Your task to perform on an android device: See recent photos Image 0: 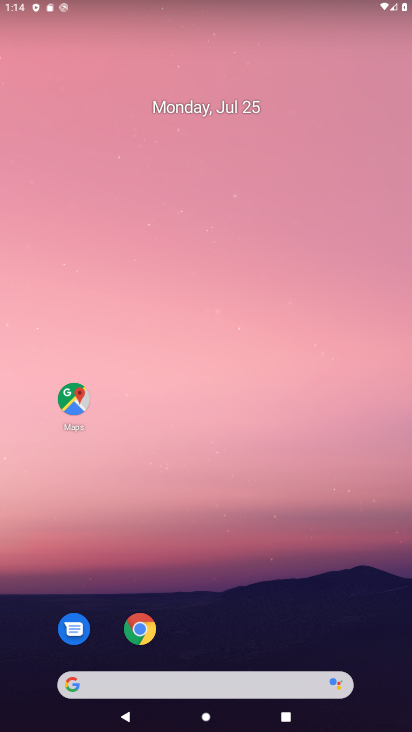
Step 0: drag from (206, 656) to (360, 65)
Your task to perform on an android device: See recent photos Image 1: 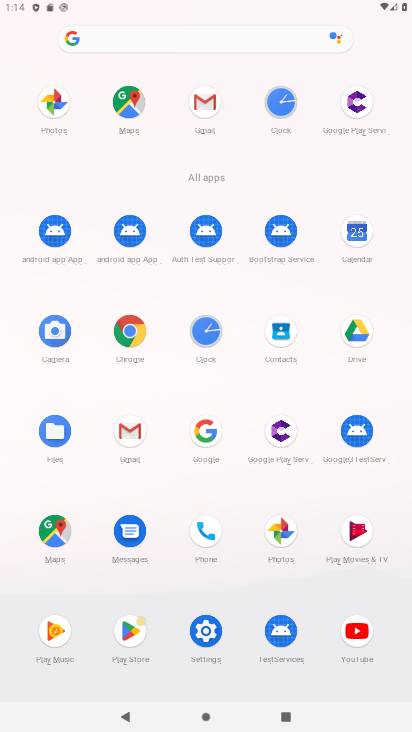
Step 1: drag from (167, 617) to (201, 211)
Your task to perform on an android device: See recent photos Image 2: 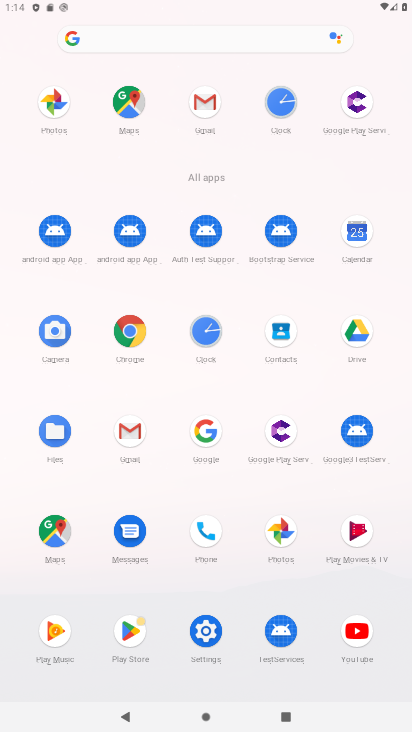
Step 2: click (279, 515)
Your task to perform on an android device: See recent photos Image 3: 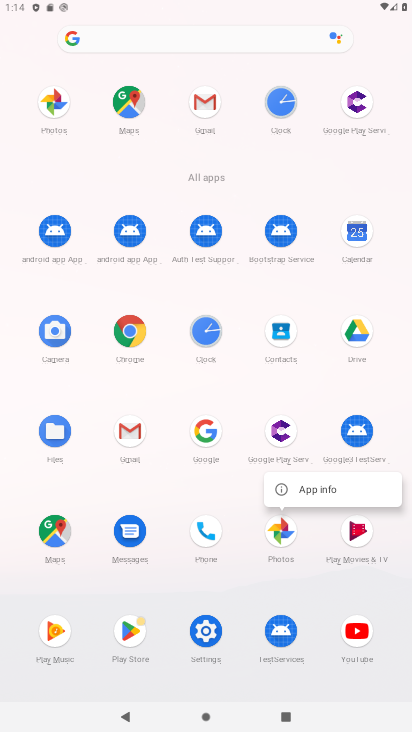
Step 3: click (282, 487)
Your task to perform on an android device: See recent photos Image 4: 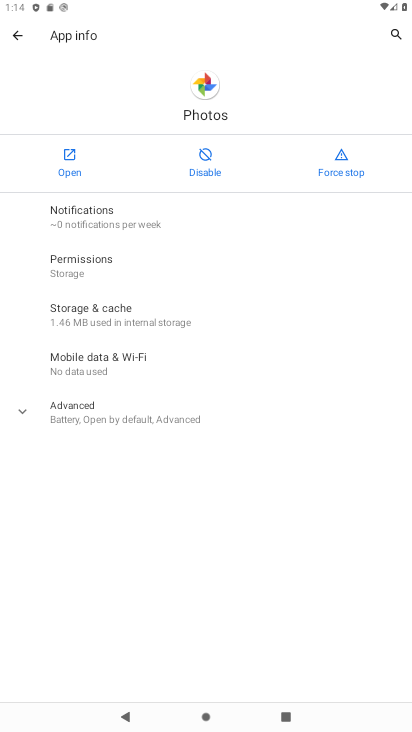
Step 4: click (75, 151)
Your task to perform on an android device: See recent photos Image 5: 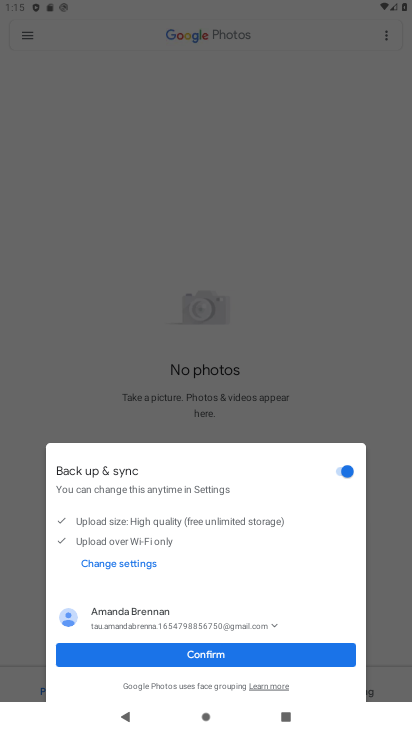
Step 5: click (178, 664)
Your task to perform on an android device: See recent photos Image 6: 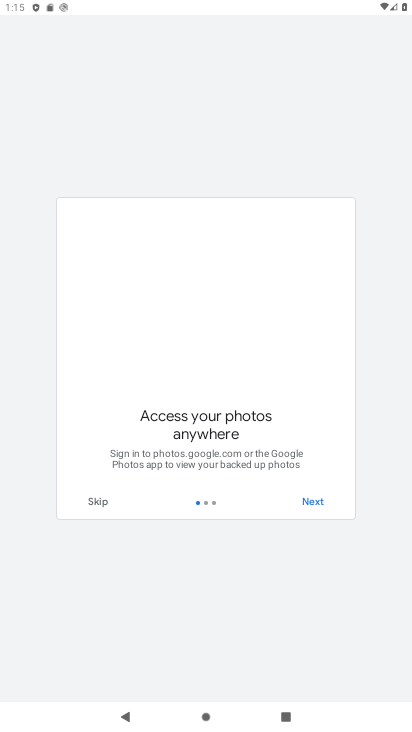
Step 6: click (83, 497)
Your task to perform on an android device: See recent photos Image 7: 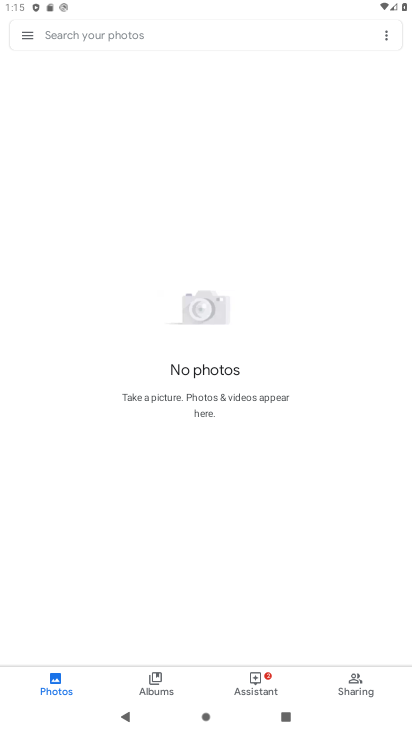
Step 7: drag from (239, 589) to (265, 258)
Your task to perform on an android device: See recent photos Image 8: 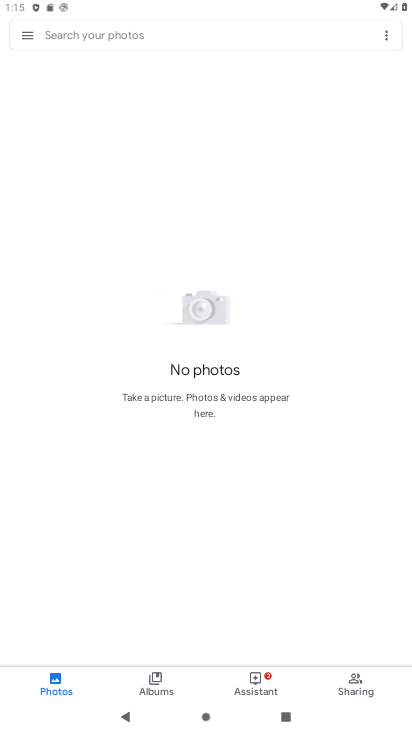
Step 8: drag from (284, 530) to (268, 239)
Your task to perform on an android device: See recent photos Image 9: 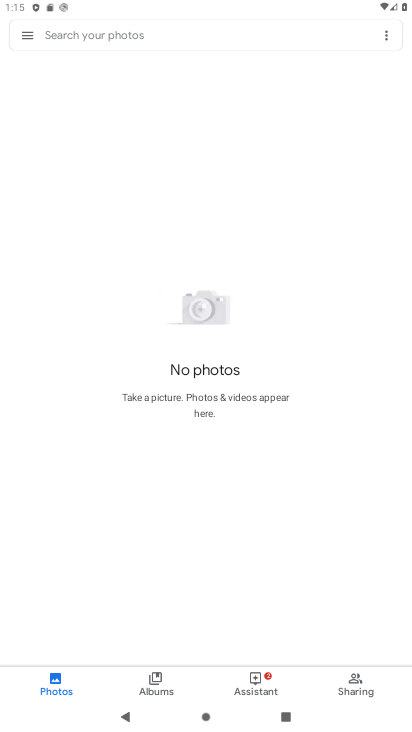
Step 9: click (44, 694)
Your task to perform on an android device: See recent photos Image 10: 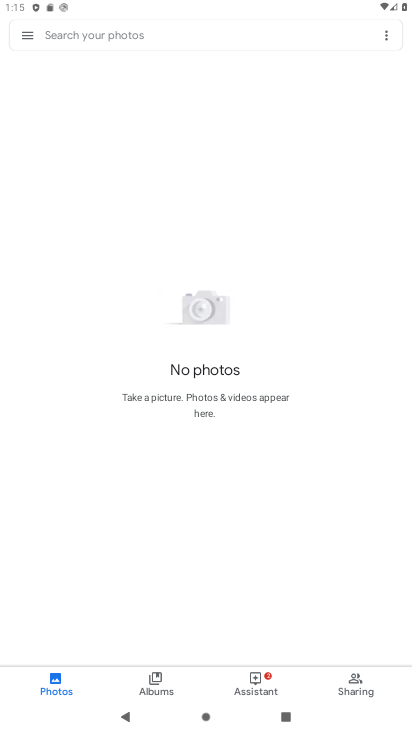
Step 10: task complete